Your task to perform on an android device: What's on my calendar tomorrow? Image 0: 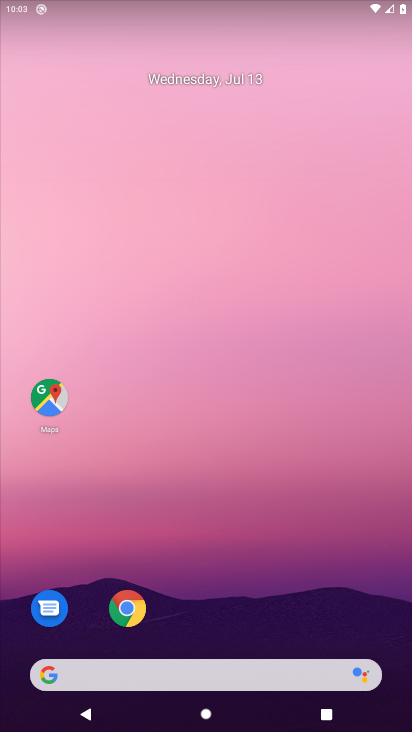
Step 0: drag from (24, 704) to (200, 15)
Your task to perform on an android device: What's on my calendar tomorrow? Image 1: 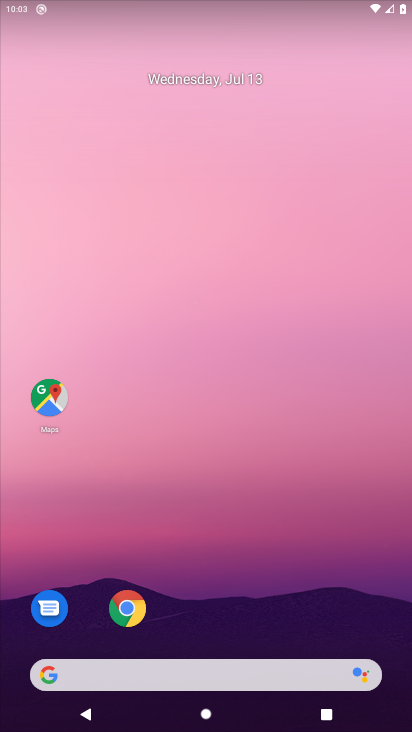
Step 1: click (194, 35)
Your task to perform on an android device: What's on my calendar tomorrow? Image 2: 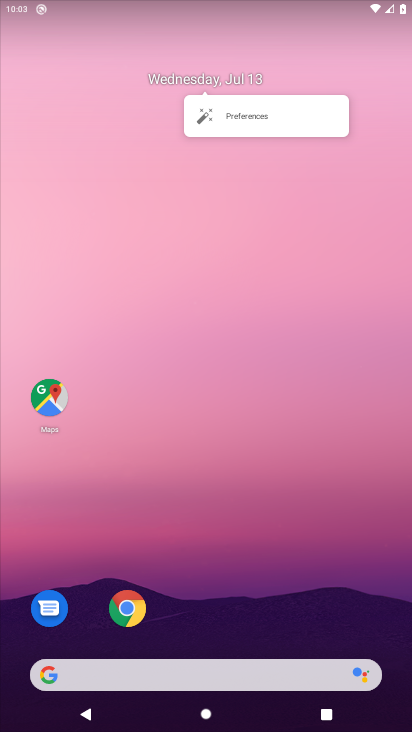
Step 2: drag from (26, 715) to (388, 6)
Your task to perform on an android device: What's on my calendar tomorrow? Image 3: 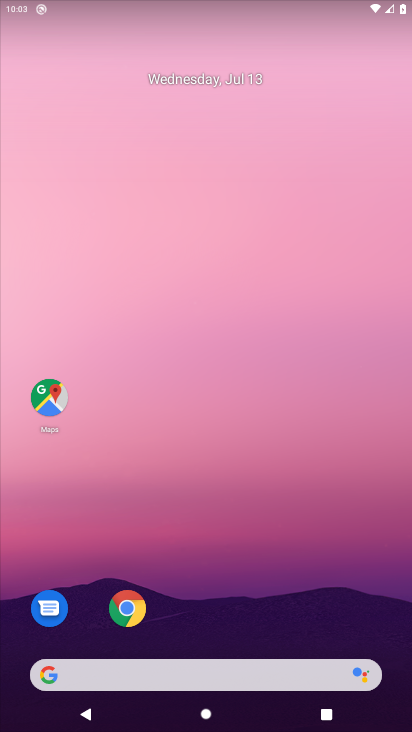
Step 3: click (404, 58)
Your task to perform on an android device: What's on my calendar tomorrow? Image 4: 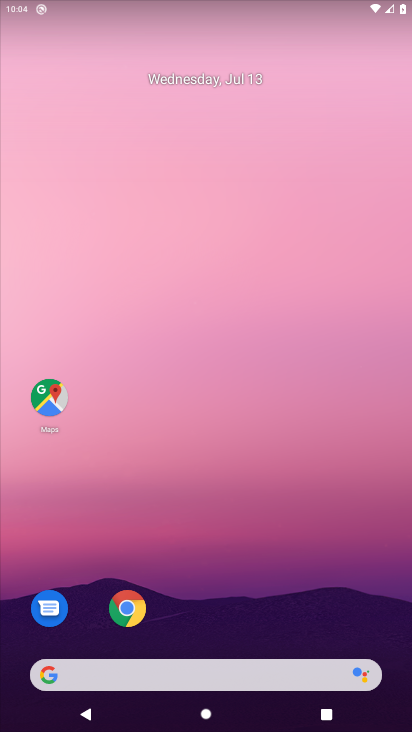
Step 4: drag from (37, 698) to (241, 8)
Your task to perform on an android device: What's on my calendar tomorrow? Image 5: 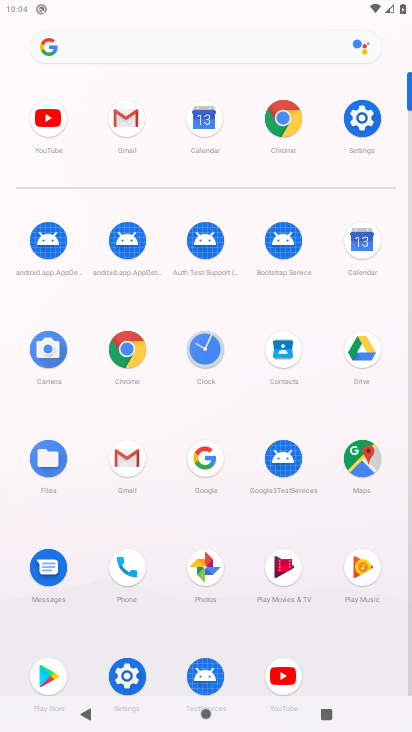
Step 5: click (361, 239)
Your task to perform on an android device: What's on my calendar tomorrow? Image 6: 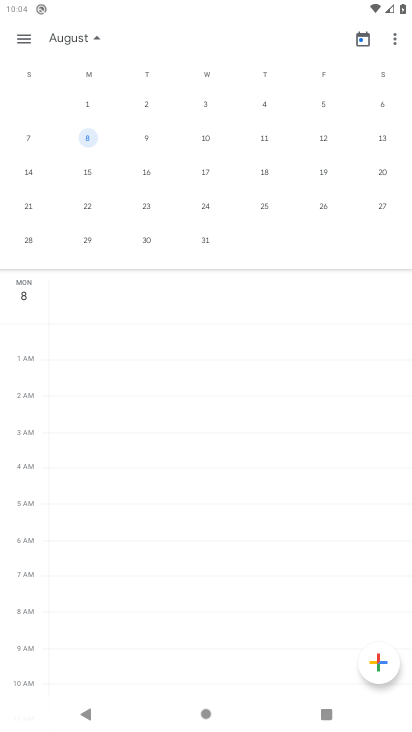
Step 6: task complete